Your task to perform on an android device: remove spam from my inbox in the gmail app Image 0: 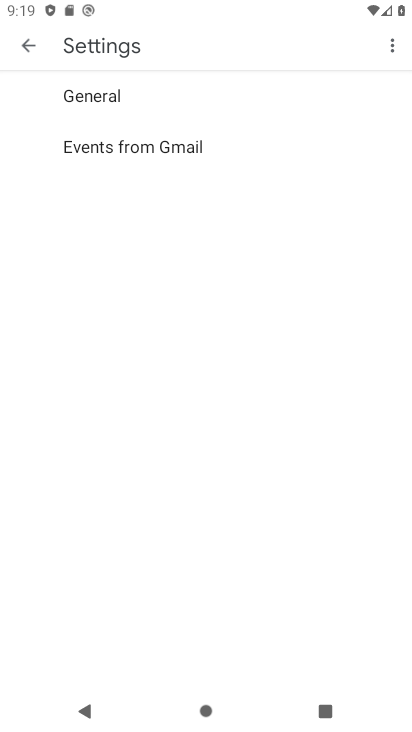
Step 0: drag from (201, 623) to (208, 534)
Your task to perform on an android device: remove spam from my inbox in the gmail app Image 1: 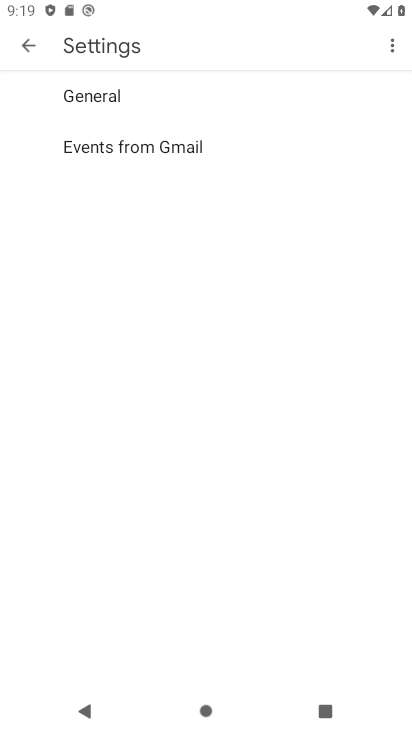
Step 1: press home button
Your task to perform on an android device: remove spam from my inbox in the gmail app Image 2: 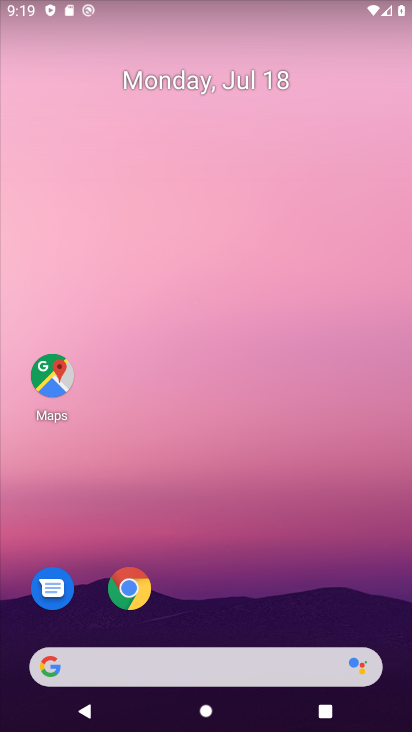
Step 2: drag from (223, 625) to (236, 64)
Your task to perform on an android device: remove spam from my inbox in the gmail app Image 3: 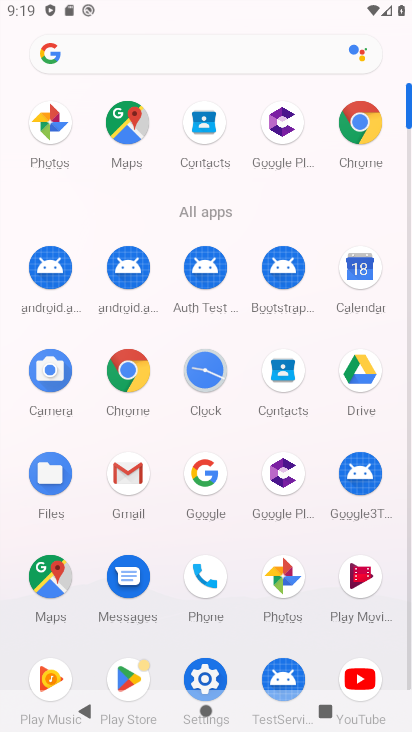
Step 3: click (119, 479)
Your task to perform on an android device: remove spam from my inbox in the gmail app Image 4: 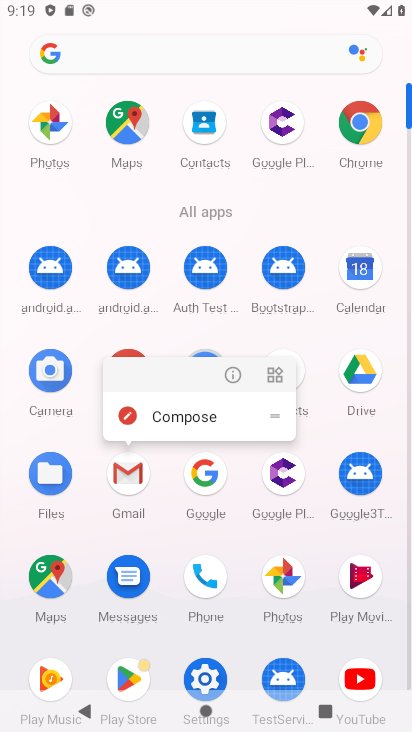
Step 4: click (121, 463)
Your task to perform on an android device: remove spam from my inbox in the gmail app Image 5: 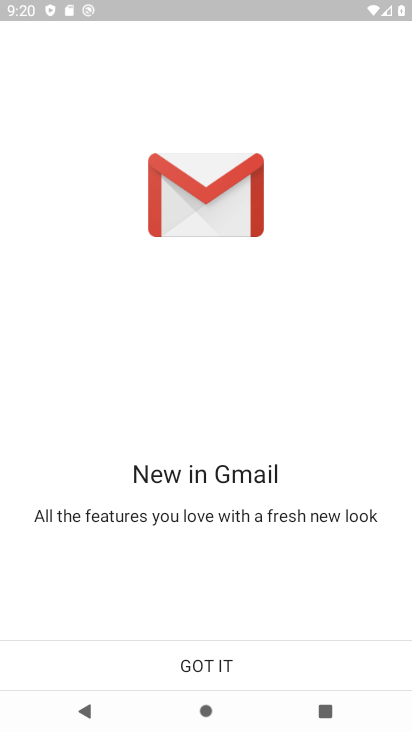
Step 5: click (262, 677)
Your task to perform on an android device: remove spam from my inbox in the gmail app Image 6: 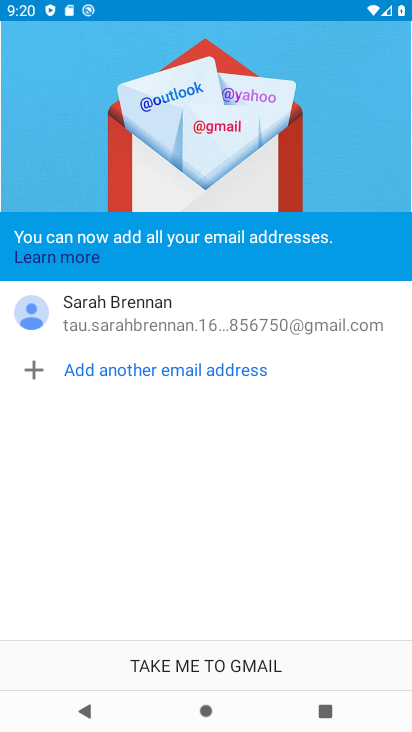
Step 6: click (262, 677)
Your task to perform on an android device: remove spam from my inbox in the gmail app Image 7: 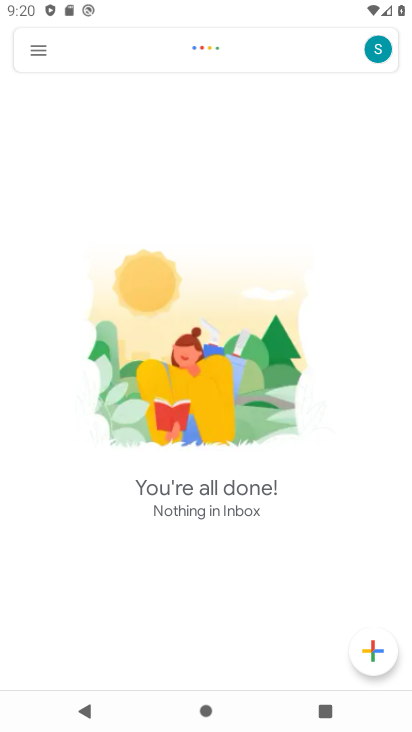
Step 7: click (52, 58)
Your task to perform on an android device: remove spam from my inbox in the gmail app Image 8: 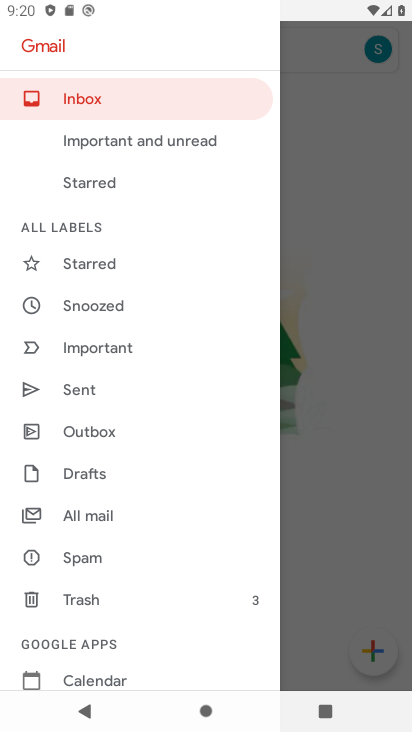
Step 8: click (89, 560)
Your task to perform on an android device: remove spam from my inbox in the gmail app Image 9: 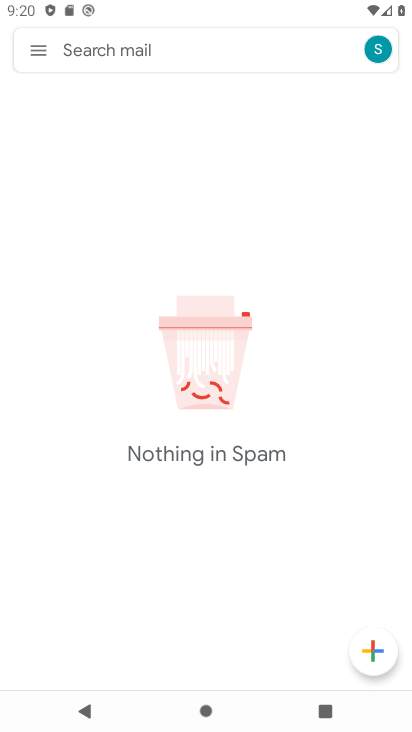
Step 9: task complete